Your task to perform on an android device: Is it going to rain this weekend? Image 0: 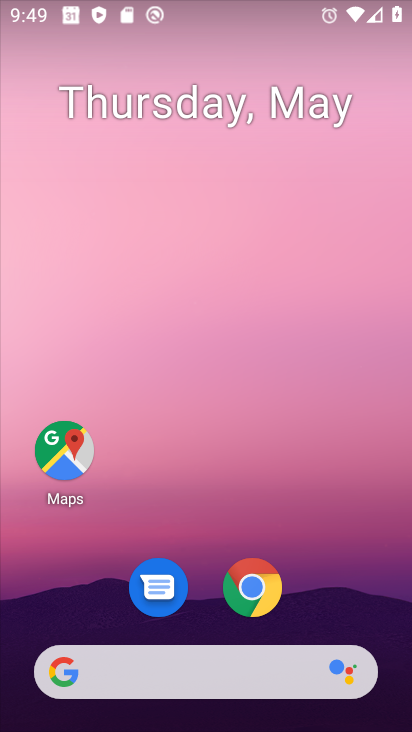
Step 0: drag from (393, 668) to (325, 72)
Your task to perform on an android device: Is it going to rain this weekend? Image 1: 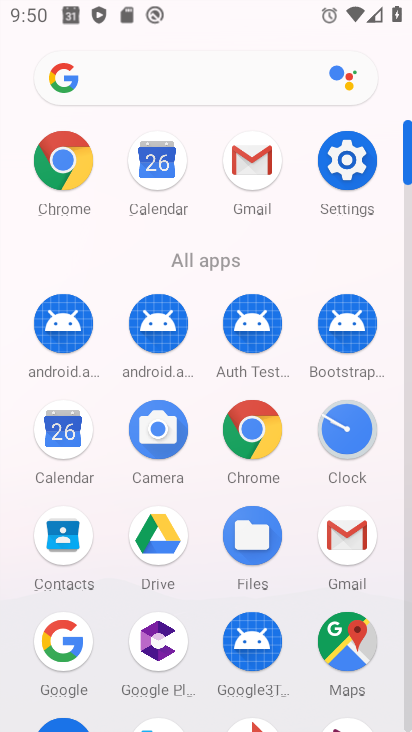
Step 1: click (65, 627)
Your task to perform on an android device: Is it going to rain this weekend? Image 2: 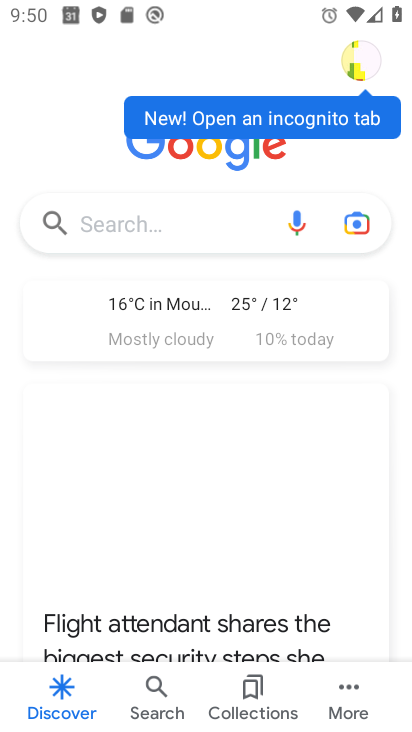
Step 2: click (147, 222)
Your task to perform on an android device: Is it going to rain this weekend? Image 3: 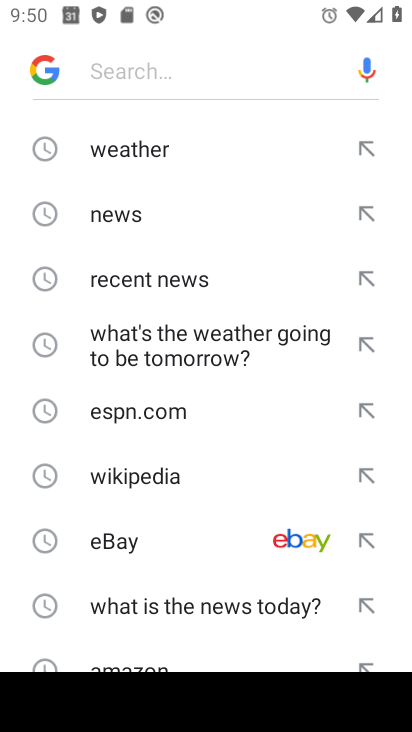
Step 3: drag from (156, 601) to (206, 222)
Your task to perform on an android device: Is it going to rain this weekend? Image 4: 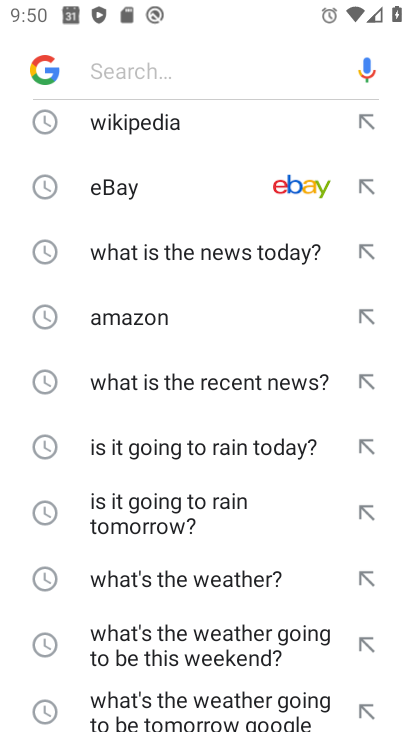
Step 4: drag from (194, 698) to (248, 375)
Your task to perform on an android device: Is it going to rain this weekend? Image 5: 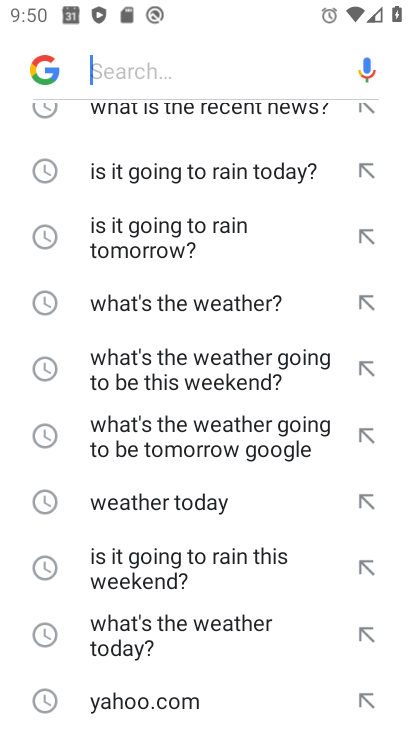
Step 5: click (207, 573)
Your task to perform on an android device: Is it going to rain this weekend? Image 6: 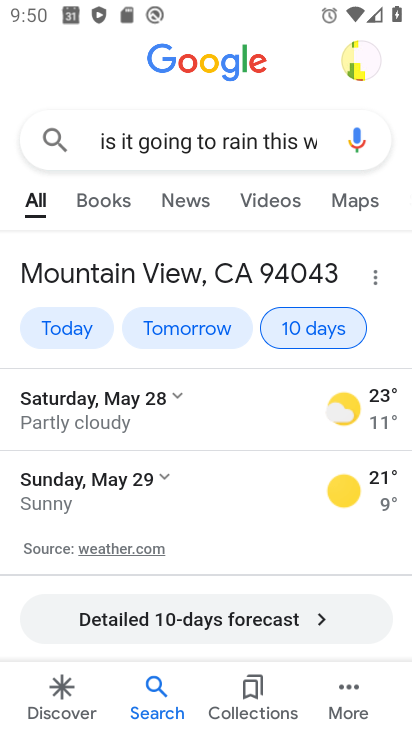
Step 6: task complete